Your task to perform on an android device: add a label to a message in the gmail app Image 0: 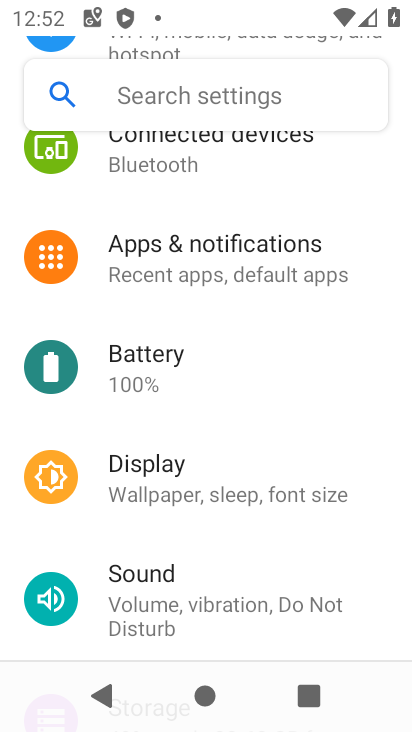
Step 0: press home button
Your task to perform on an android device: add a label to a message in the gmail app Image 1: 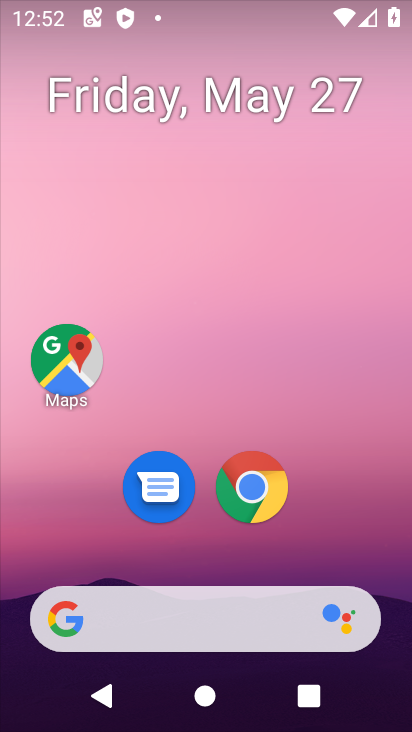
Step 1: drag from (174, 450) to (209, 112)
Your task to perform on an android device: add a label to a message in the gmail app Image 2: 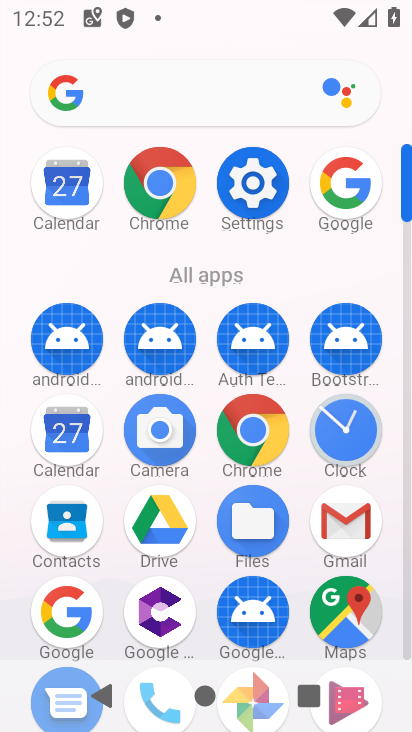
Step 2: click (339, 529)
Your task to perform on an android device: add a label to a message in the gmail app Image 3: 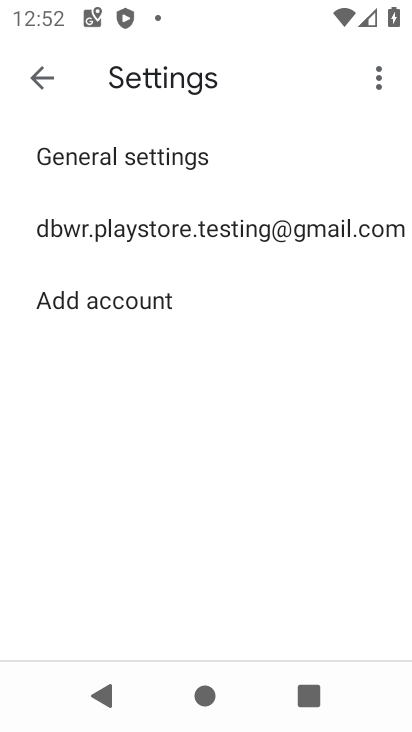
Step 3: press back button
Your task to perform on an android device: add a label to a message in the gmail app Image 4: 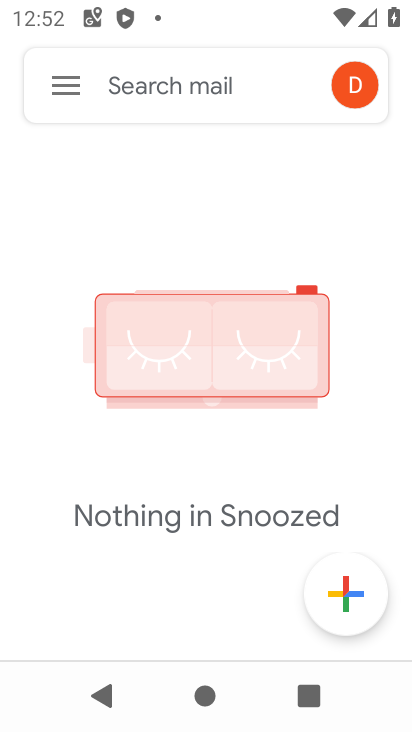
Step 4: click (63, 79)
Your task to perform on an android device: add a label to a message in the gmail app Image 5: 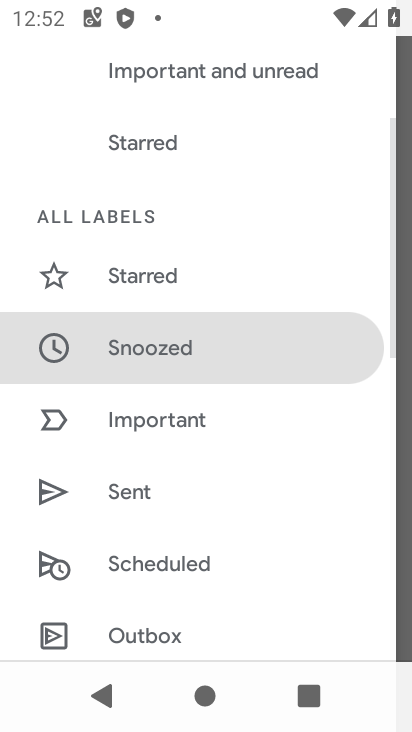
Step 5: drag from (191, 195) to (244, 105)
Your task to perform on an android device: add a label to a message in the gmail app Image 6: 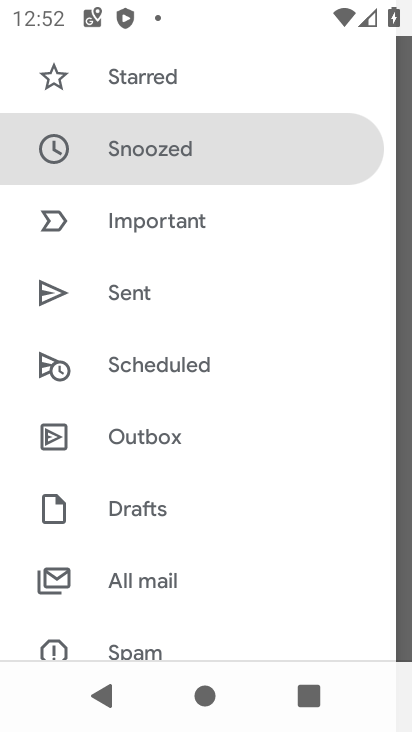
Step 6: click (135, 585)
Your task to perform on an android device: add a label to a message in the gmail app Image 7: 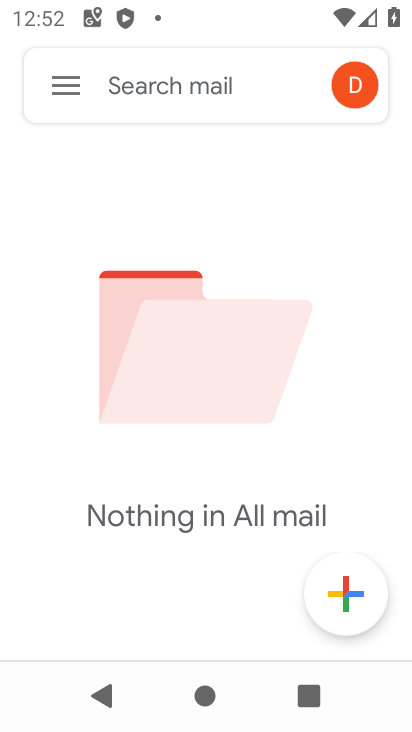
Step 7: task complete